Your task to perform on an android device: Open the map Image 0: 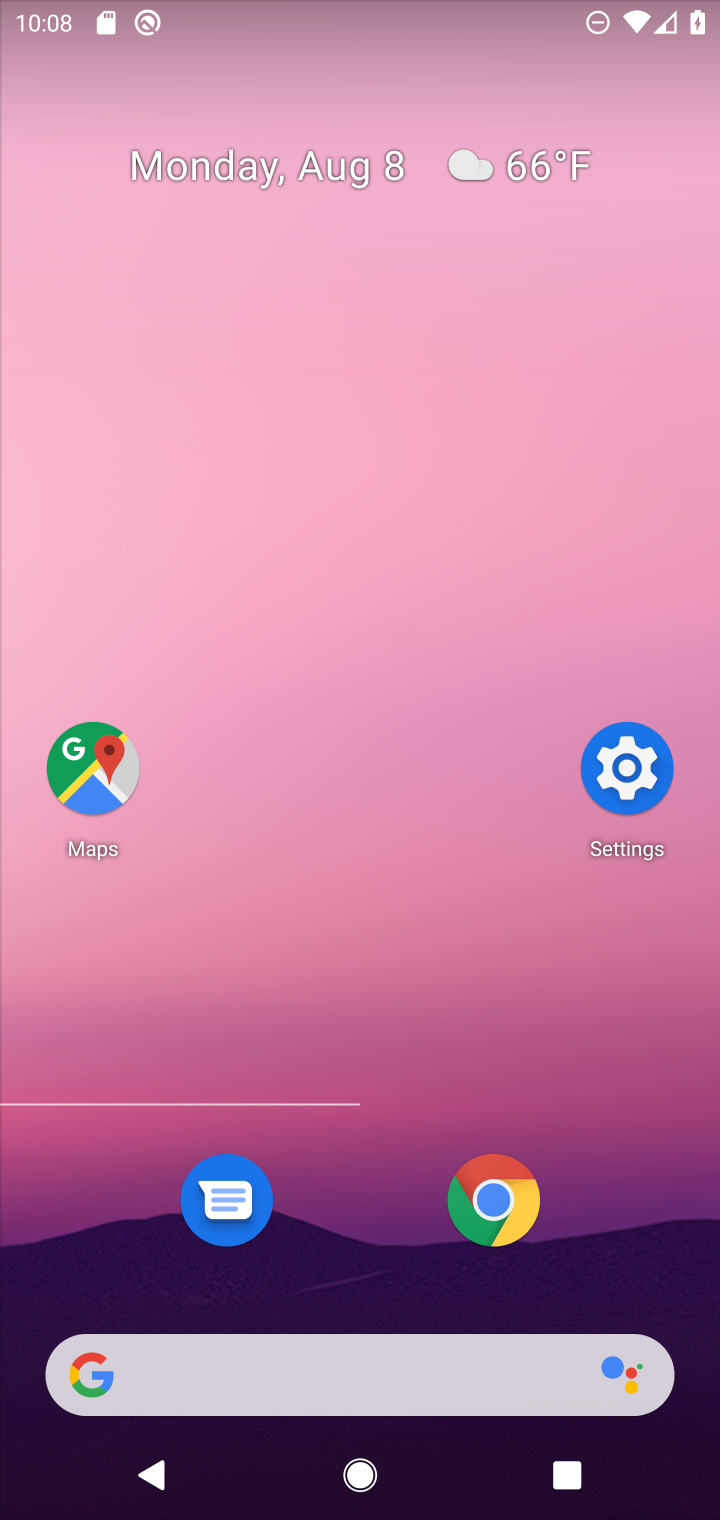
Step 0: press home button
Your task to perform on an android device: Open the map Image 1: 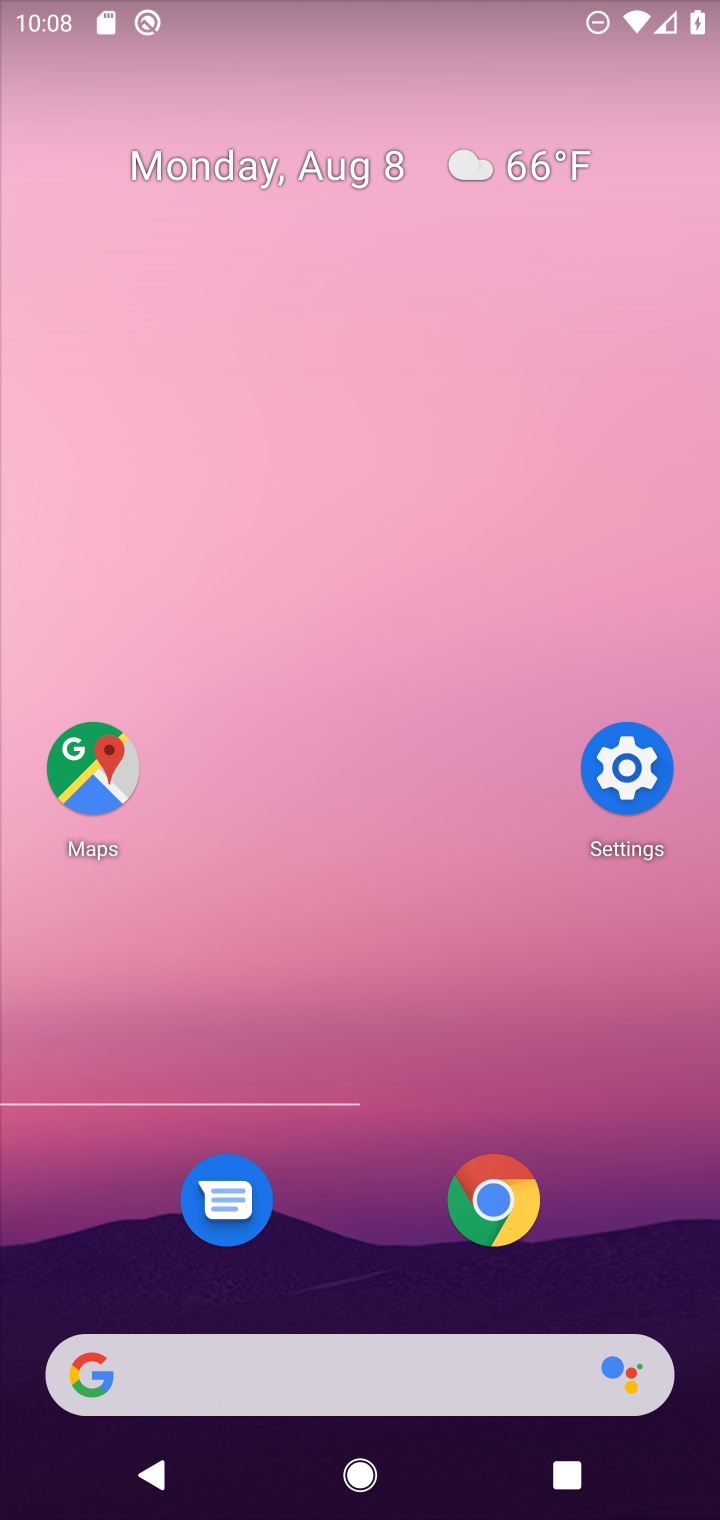
Step 1: click (103, 791)
Your task to perform on an android device: Open the map Image 2: 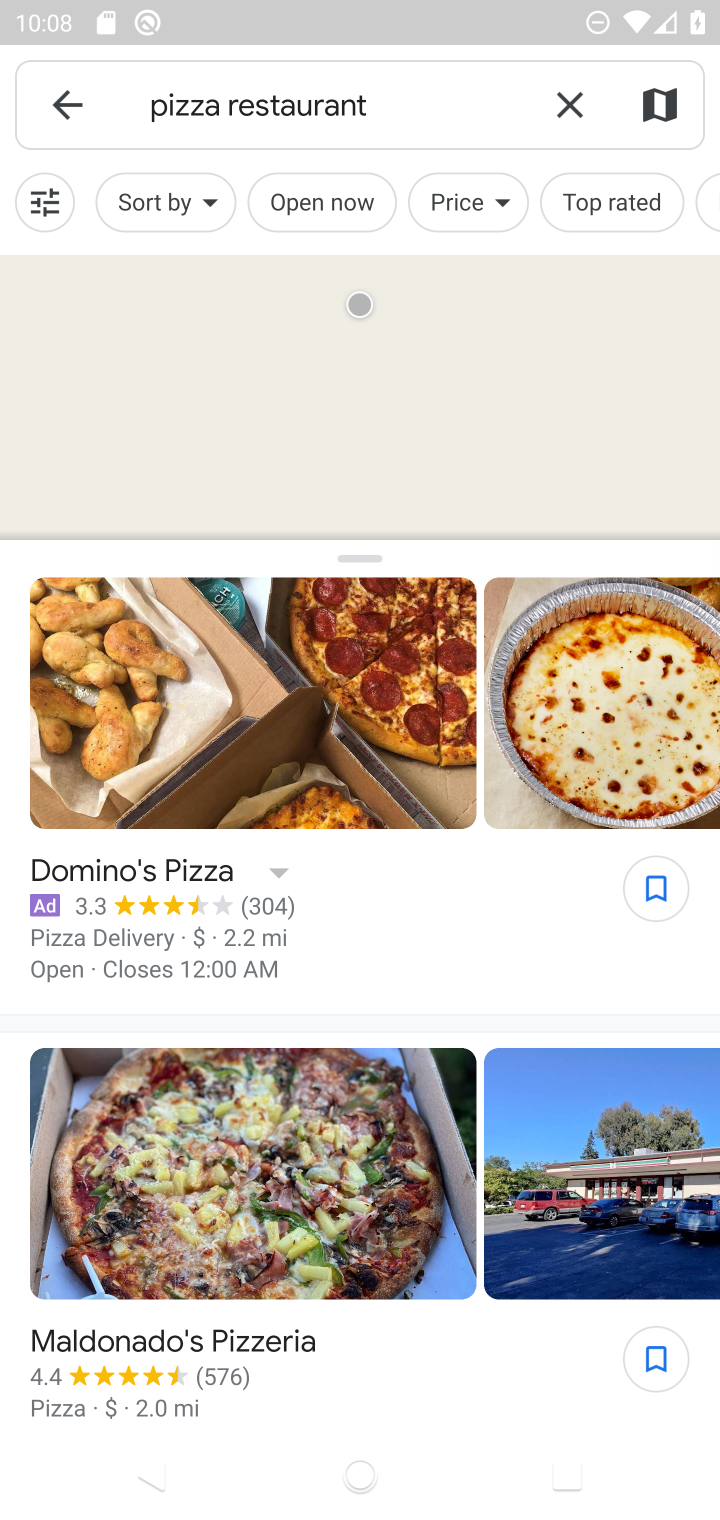
Step 2: click (67, 99)
Your task to perform on an android device: Open the map Image 3: 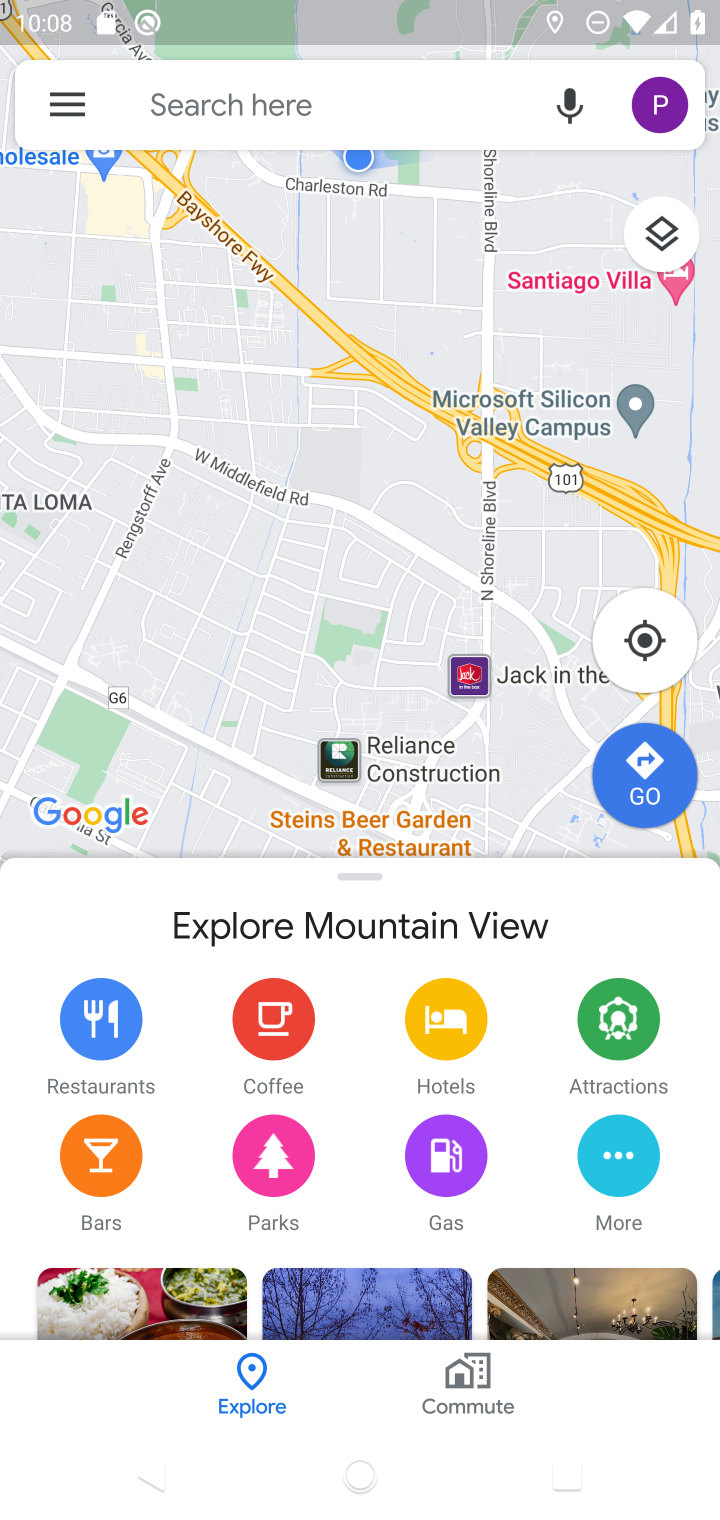
Step 3: task complete